Your task to perform on an android device: Open Google Maps Image 0: 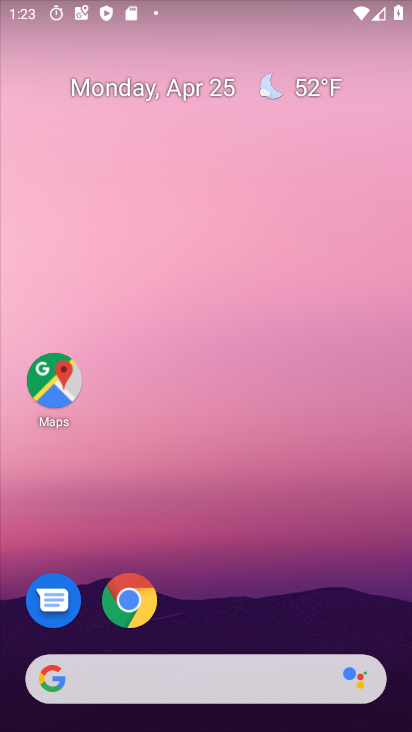
Step 0: drag from (187, 684) to (293, 144)
Your task to perform on an android device: Open Google Maps Image 1: 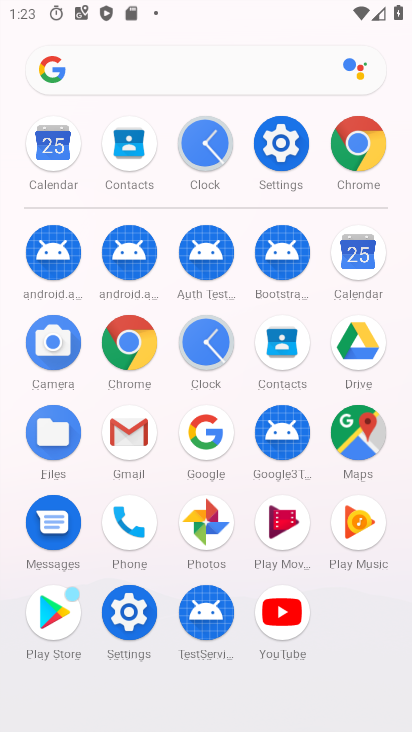
Step 1: click (366, 448)
Your task to perform on an android device: Open Google Maps Image 2: 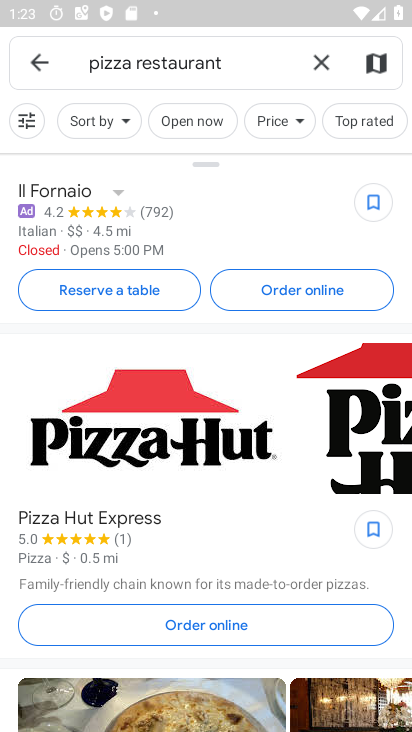
Step 2: click (43, 64)
Your task to perform on an android device: Open Google Maps Image 3: 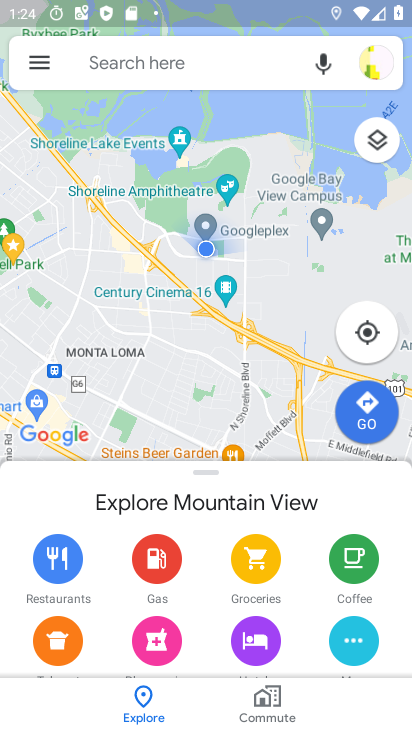
Step 3: task complete